Your task to perform on an android device: Empty the shopping cart on costco.com. Image 0: 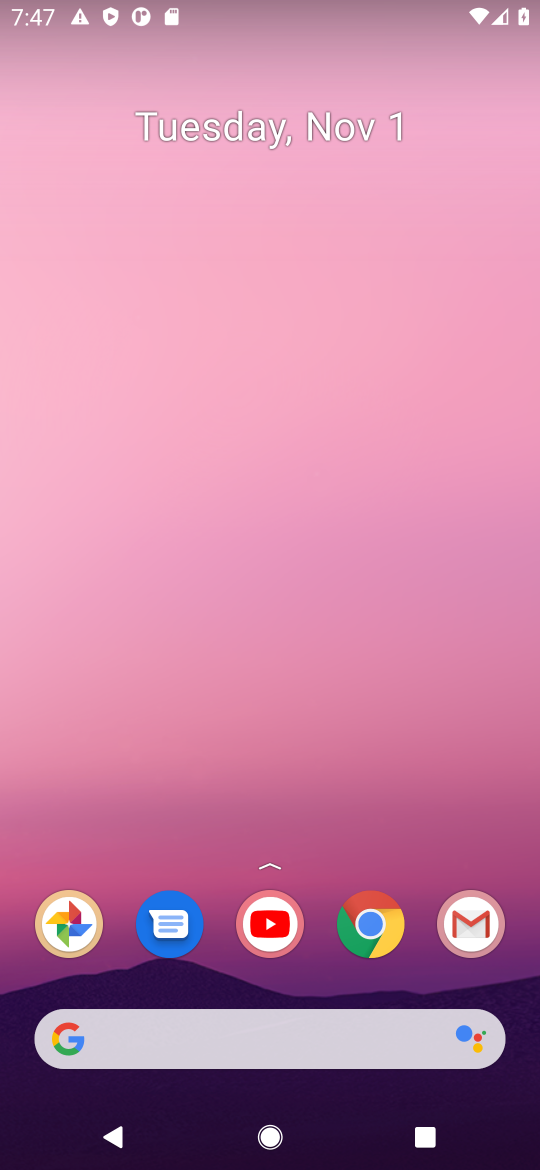
Step 0: press home button
Your task to perform on an android device: Empty the shopping cart on costco.com. Image 1: 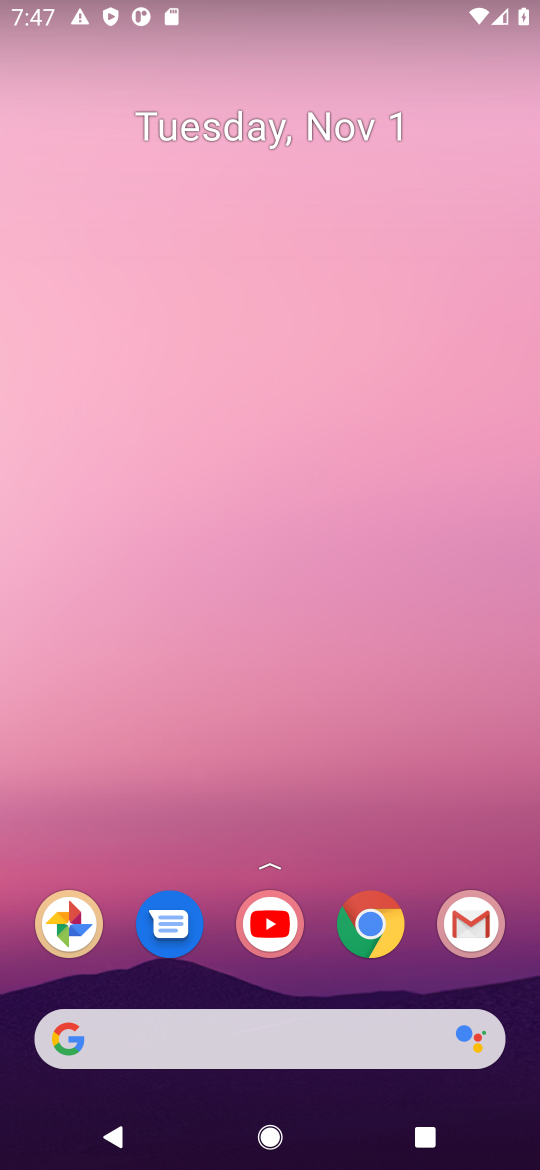
Step 1: click (109, 1035)
Your task to perform on an android device: Empty the shopping cart on costco.com. Image 2: 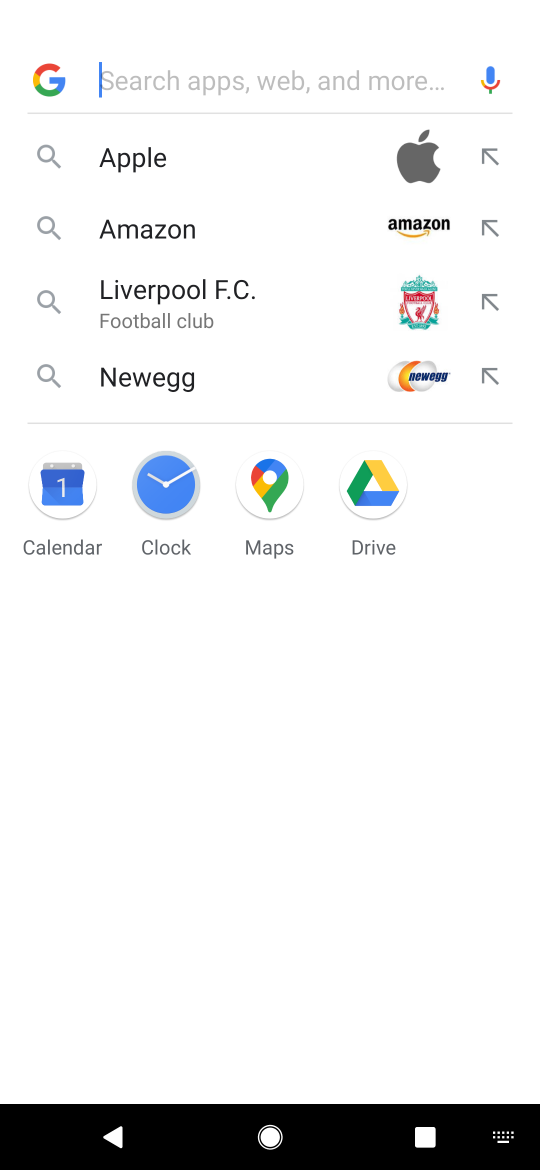
Step 2: type "costco.com"
Your task to perform on an android device: Empty the shopping cart on costco.com. Image 3: 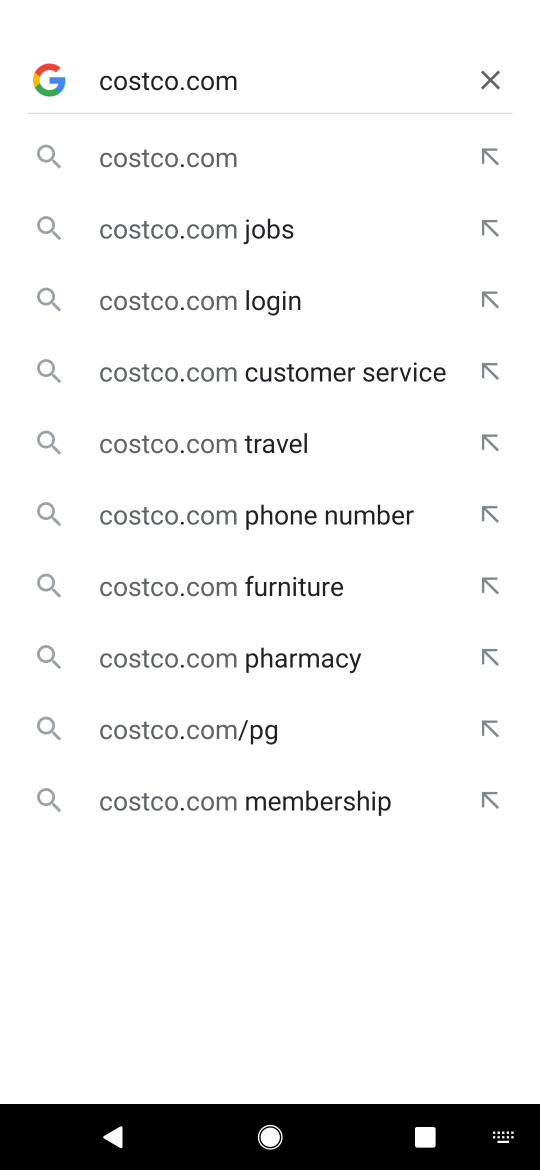
Step 3: press enter
Your task to perform on an android device: Empty the shopping cart on costco.com. Image 4: 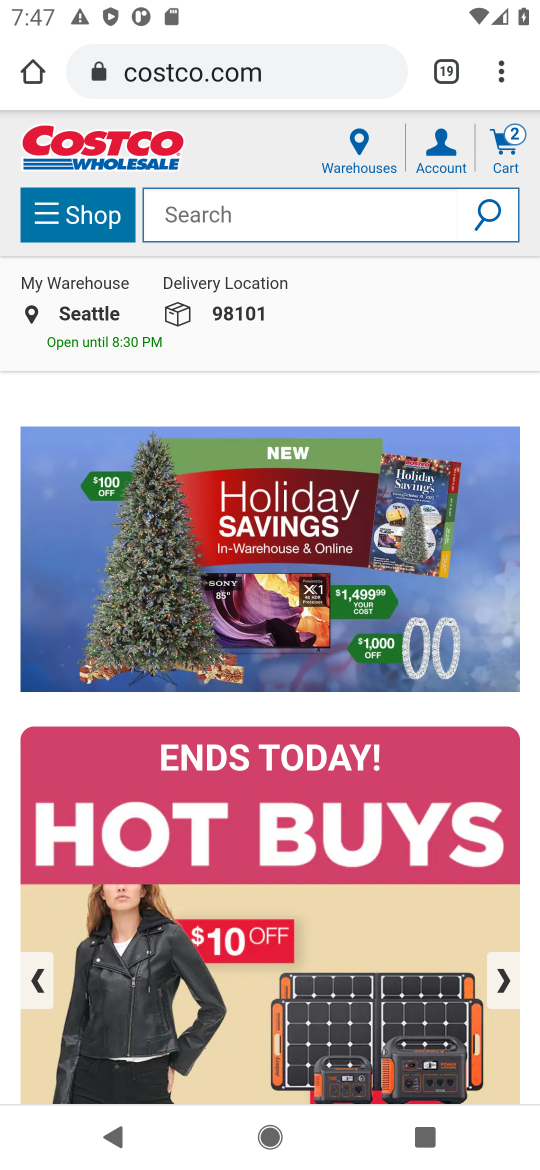
Step 4: click (511, 140)
Your task to perform on an android device: Empty the shopping cart on costco.com. Image 5: 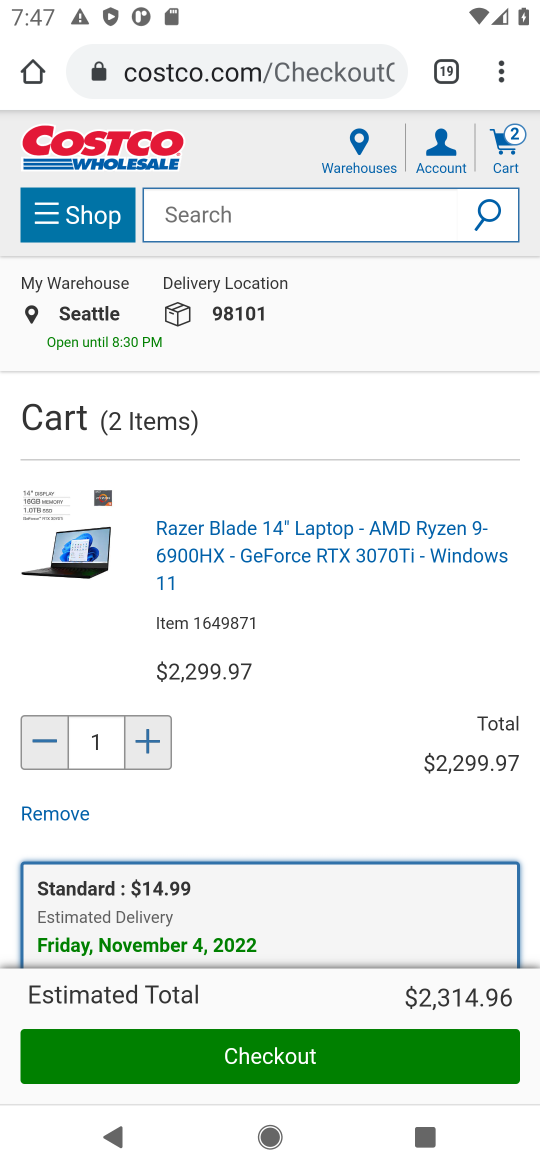
Step 5: click (50, 815)
Your task to perform on an android device: Empty the shopping cart on costco.com. Image 6: 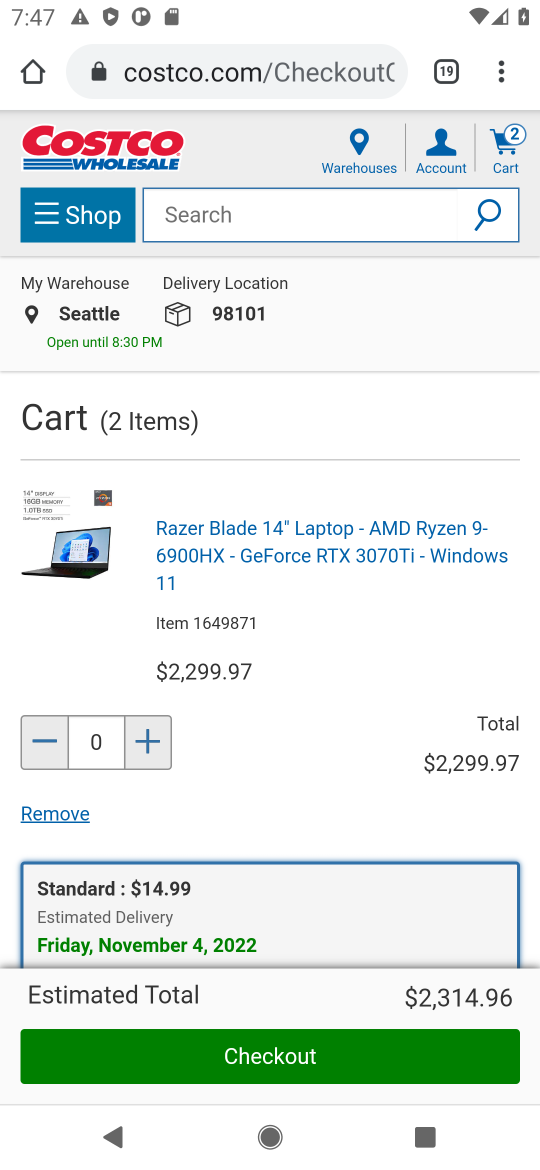
Step 6: click (44, 818)
Your task to perform on an android device: Empty the shopping cart on costco.com. Image 7: 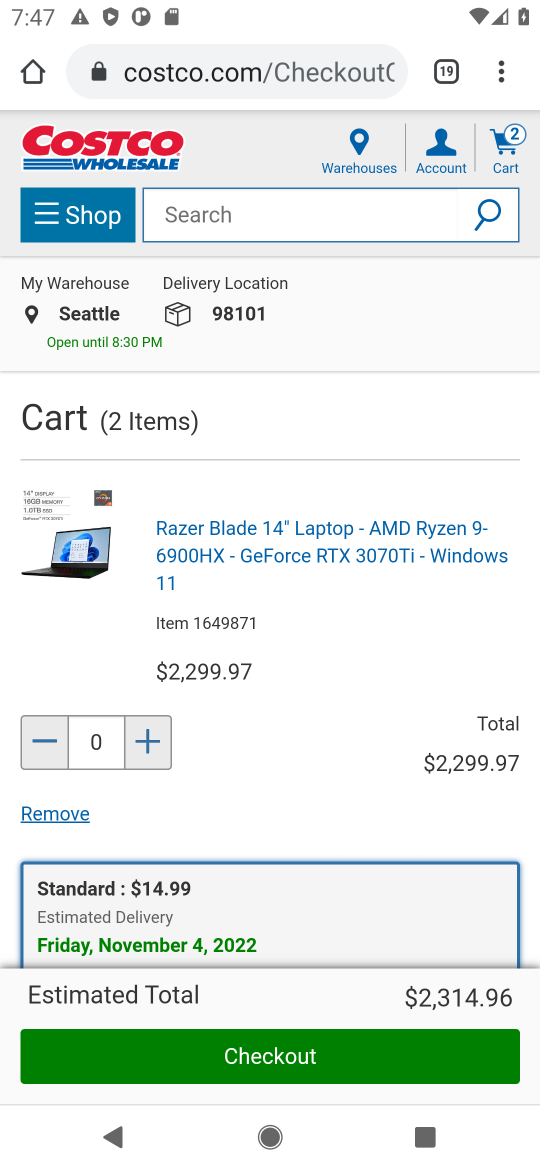
Step 7: drag from (313, 705) to (323, 386)
Your task to perform on an android device: Empty the shopping cart on costco.com. Image 8: 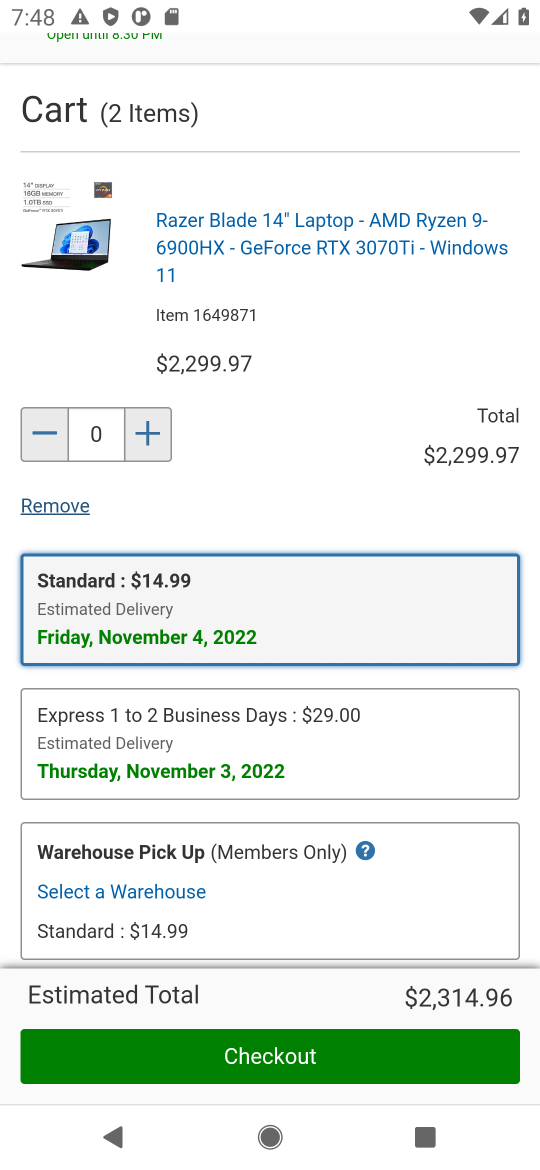
Step 8: click (48, 504)
Your task to perform on an android device: Empty the shopping cart on costco.com. Image 9: 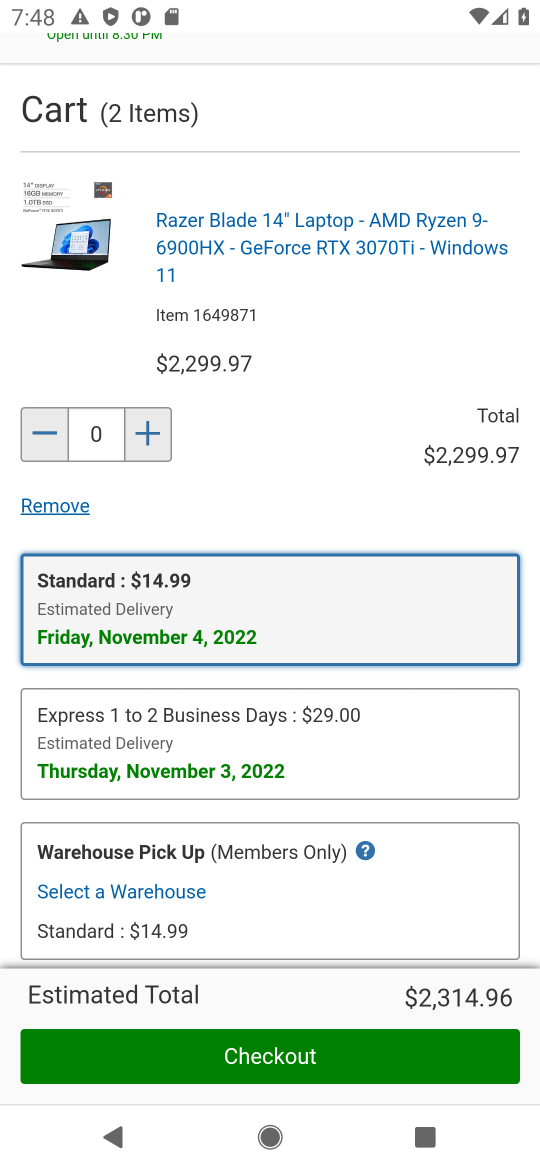
Step 9: click (47, 498)
Your task to perform on an android device: Empty the shopping cart on costco.com. Image 10: 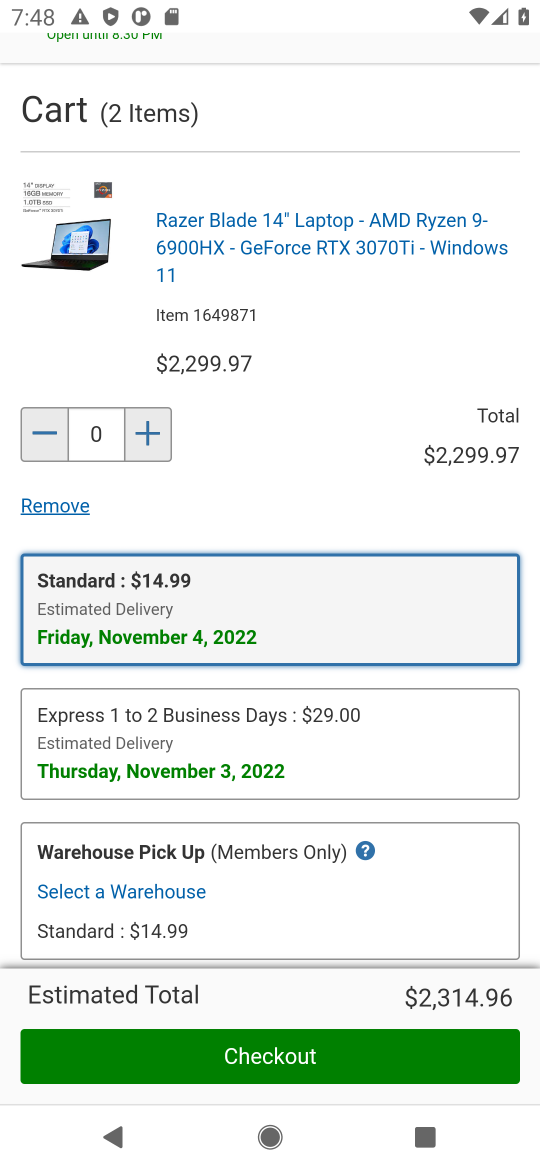
Step 10: click (45, 507)
Your task to perform on an android device: Empty the shopping cart on costco.com. Image 11: 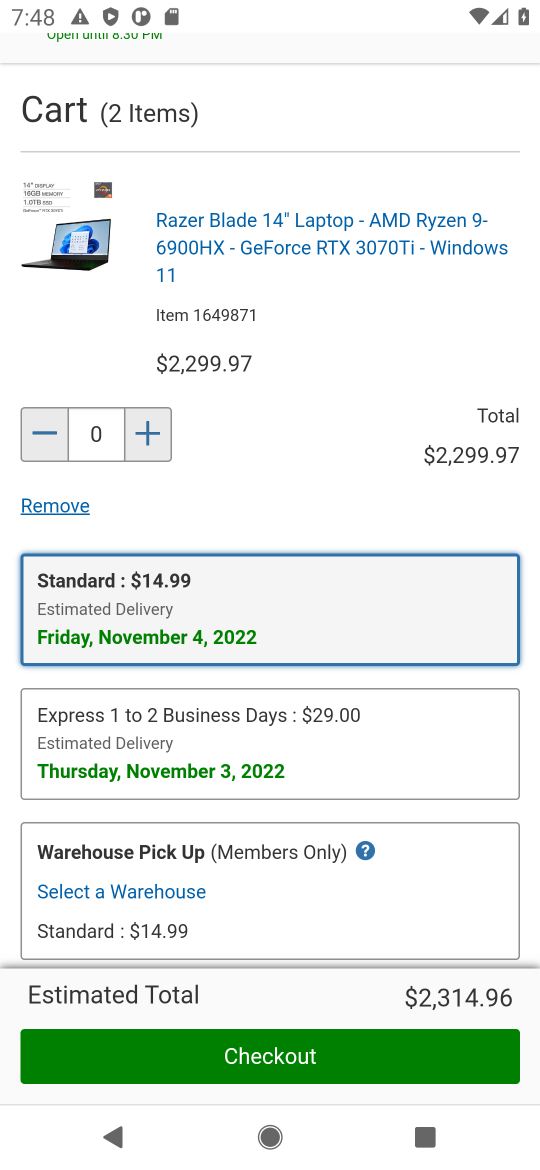
Step 11: click (41, 499)
Your task to perform on an android device: Empty the shopping cart on costco.com. Image 12: 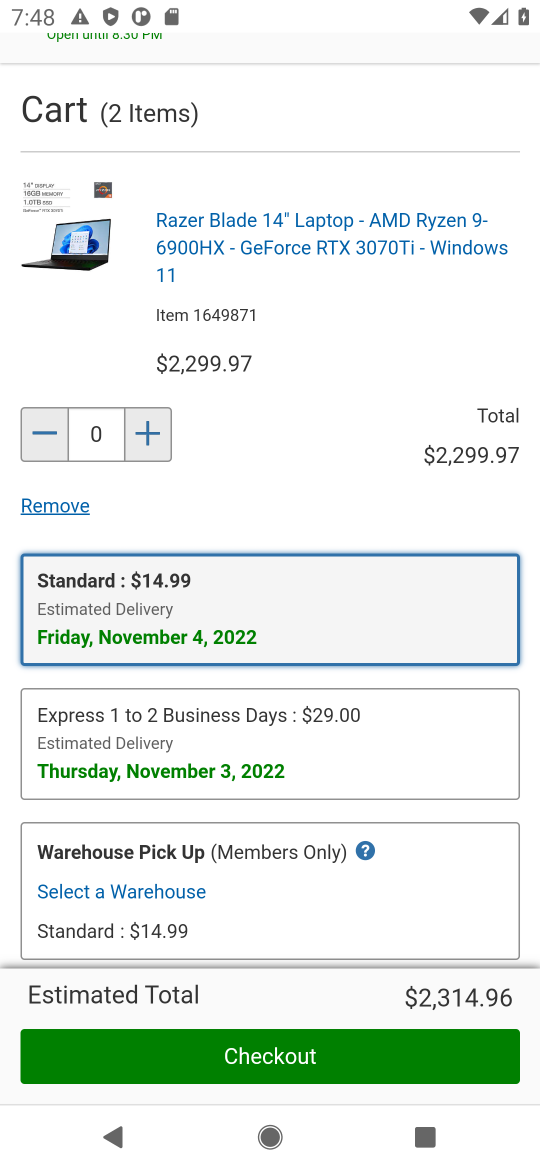
Step 12: task complete